Your task to perform on an android device: make emails show in primary in the gmail app Image 0: 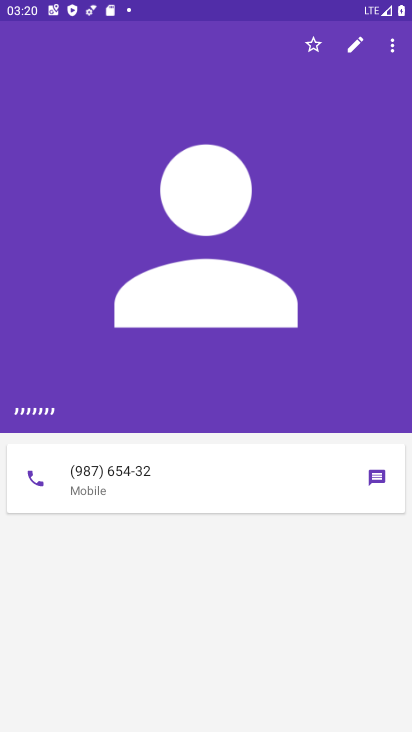
Step 0: press home button
Your task to perform on an android device: make emails show in primary in the gmail app Image 1: 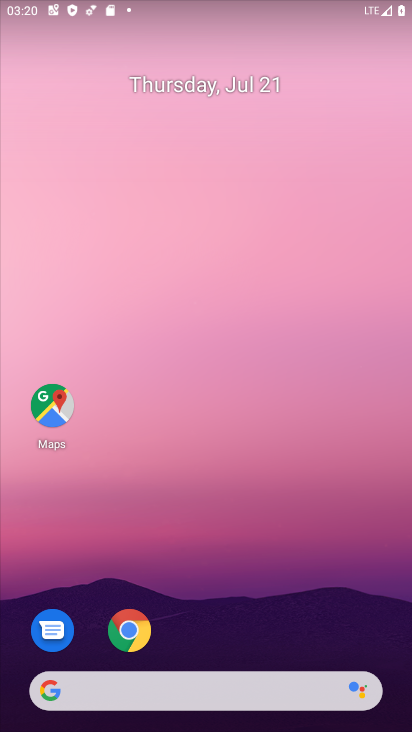
Step 1: drag from (165, 609) to (170, 35)
Your task to perform on an android device: make emails show in primary in the gmail app Image 2: 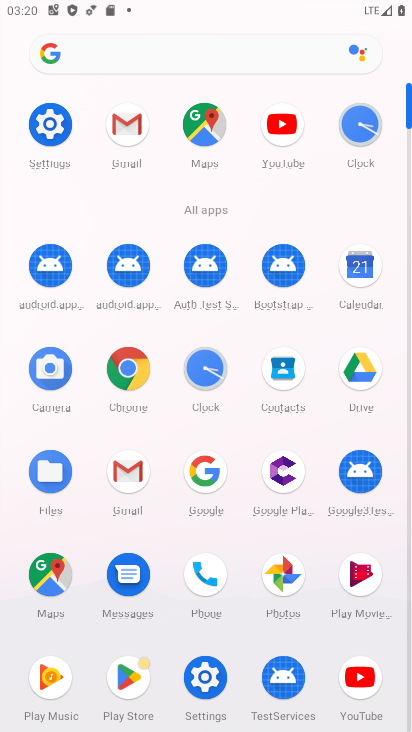
Step 2: click (127, 142)
Your task to perform on an android device: make emails show in primary in the gmail app Image 3: 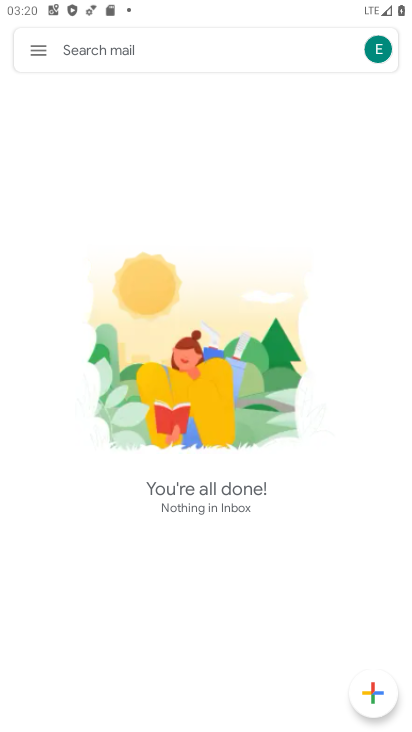
Step 3: click (35, 39)
Your task to perform on an android device: make emails show in primary in the gmail app Image 4: 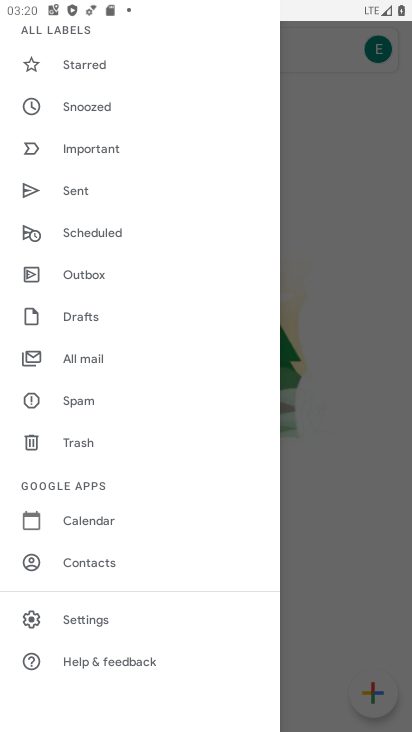
Step 4: task complete